Your task to perform on an android device: Open battery settings Image 0: 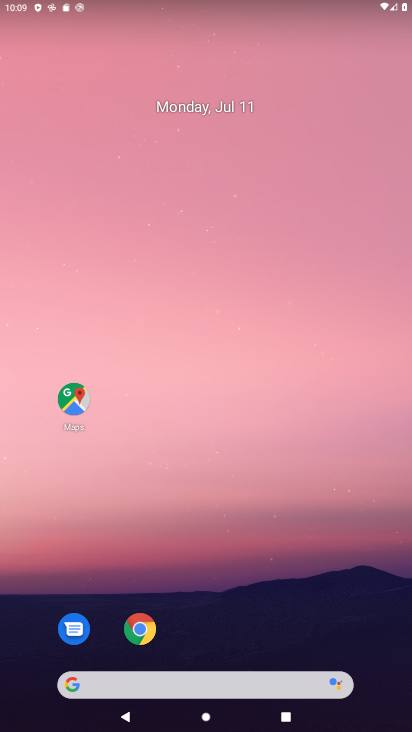
Step 0: drag from (265, 628) to (130, 176)
Your task to perform on an android device: Open battery settings Image 1: 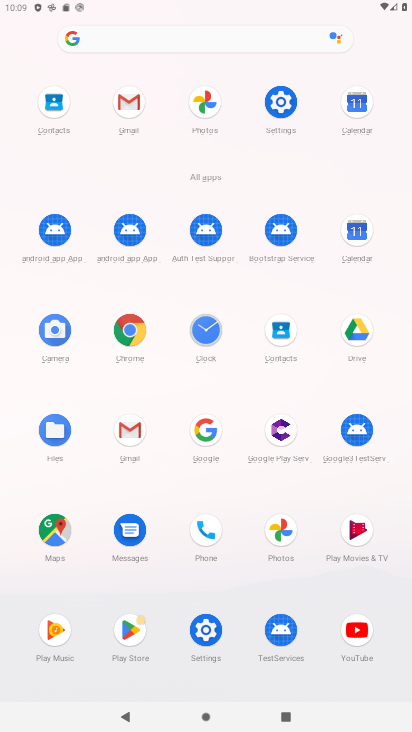
Step 1: click (272, 137)
Your task to perform on an android device: Open battery settings Image 2: 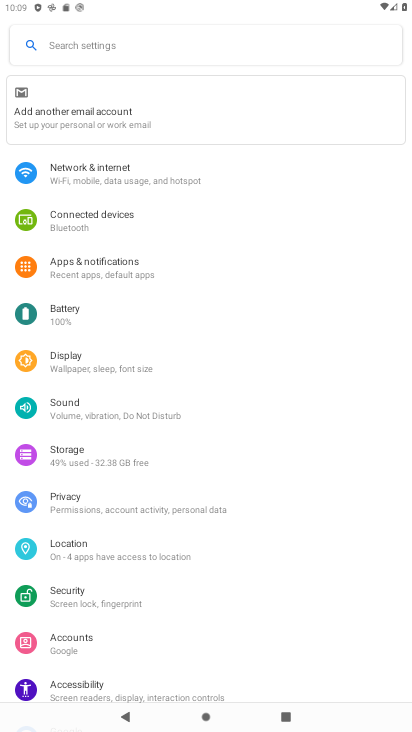
Step 2: click (125, 315)
Your task to perform on an android device: Open battery settings Image 3: 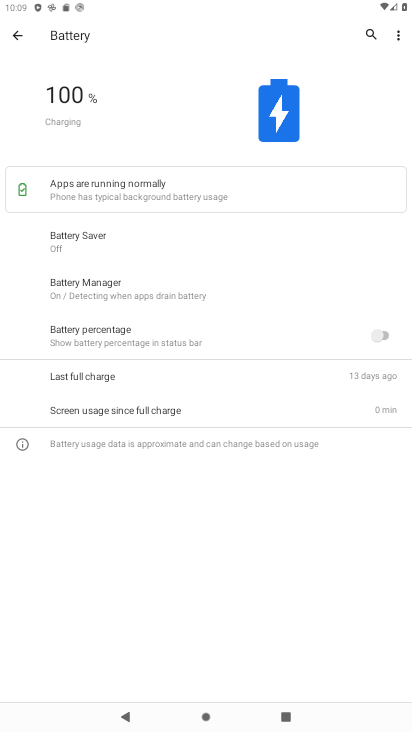
Step 3: task complete